Your task to perform on an android device: Open eBay Image 0: 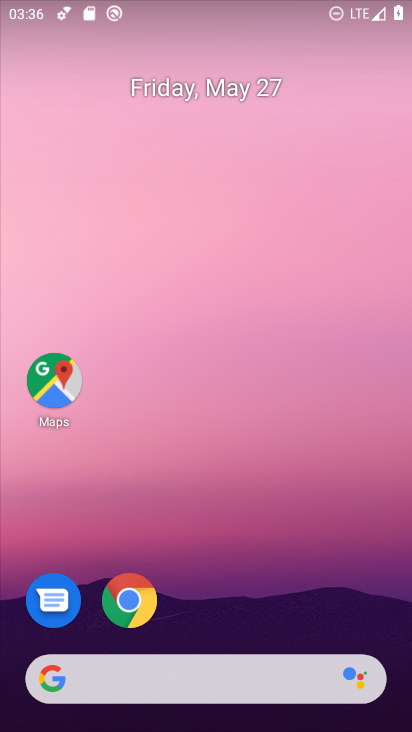
Step 0: click (131, 608)
Your task to perform on an android device: Open eBay Image 1: 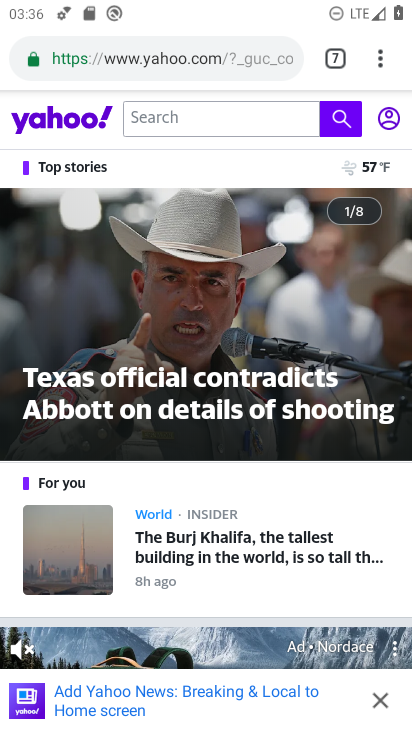
Step 1: click (378, 63)
Your task to perform on an android device: Open eBay Image 2: 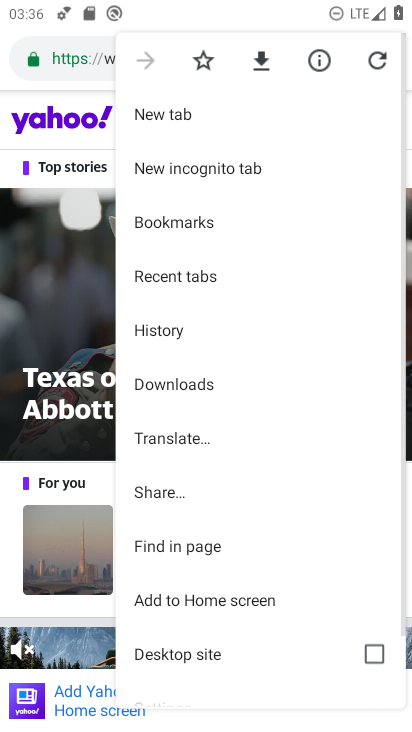
Step 2: click (175, 111)
Your task to perform on an android device: Open eBay Image 3: 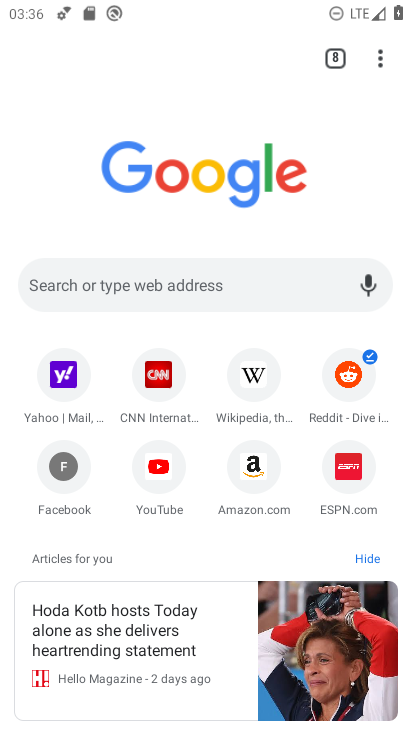
Step 3: click (205, 275)
Your task to perform on an android device: Open eBay Image 4: 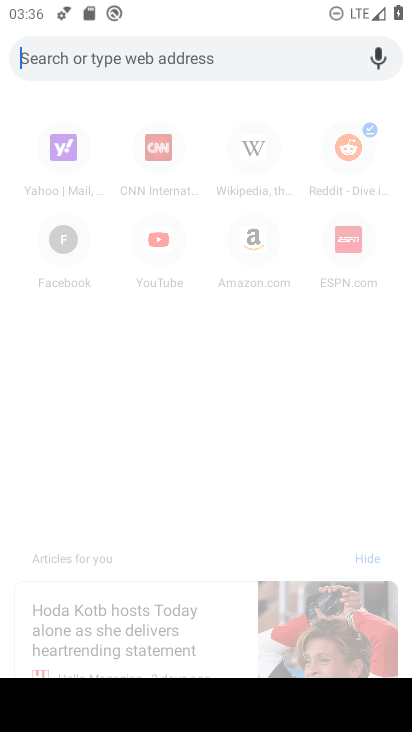
Step 4: type "eBay"
Your task to perform on an android device: Open eBay Image 5: 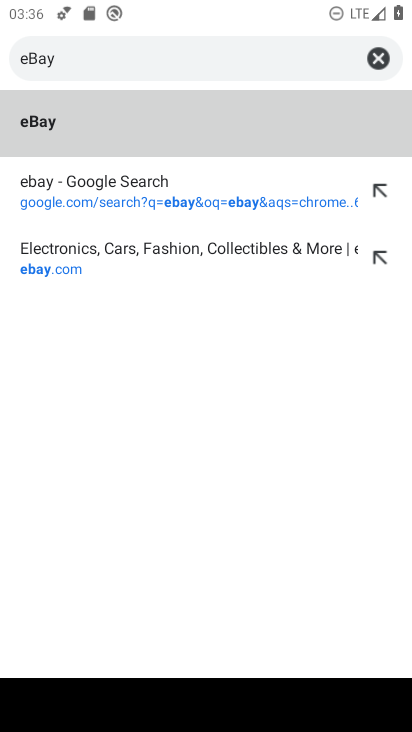
Step 5: click (53, 116)
Your task to perform on an android device: Open eBay Image 6: 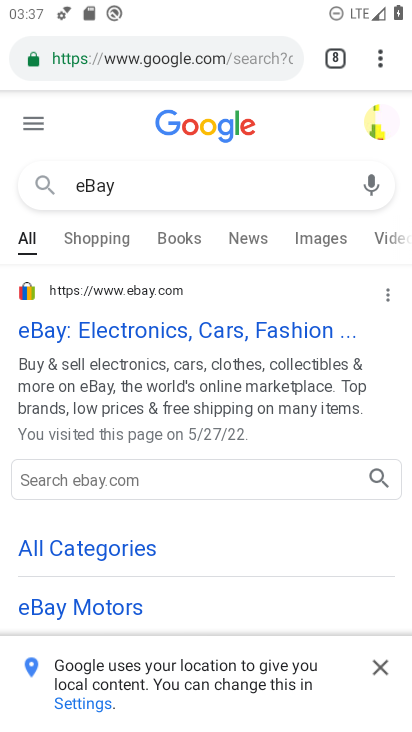
Step 6: click (142, 328)
Your task to perform on an android device: Open eBay Image 7: 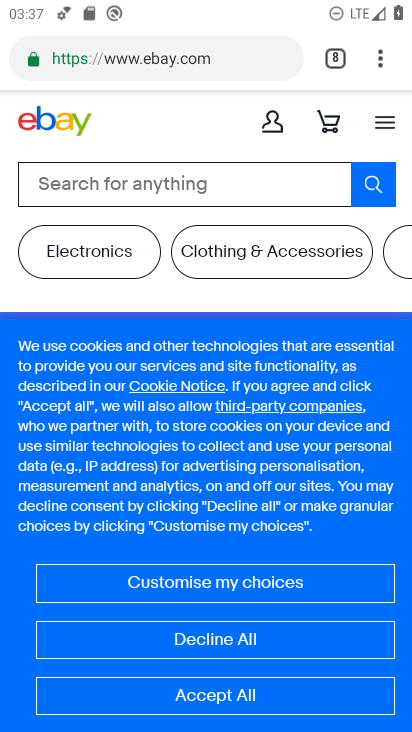
Step 7: task complete